Your task to perform on an android device: Open network settings Image 0: 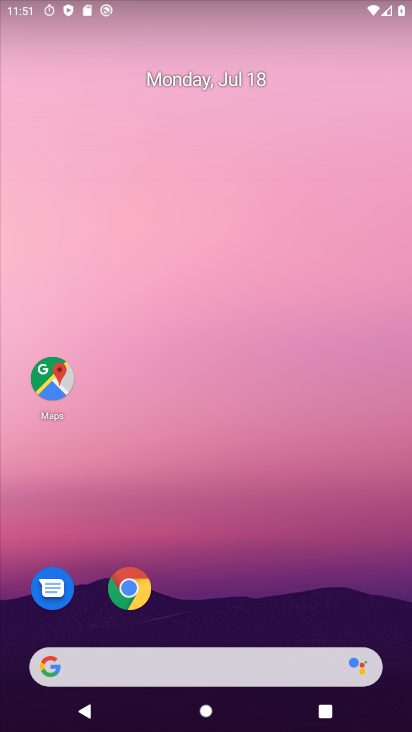
Step 0: drag from (230, 543) to (410, 53)
Your task to perform on an android device: Open network settings Image 1: 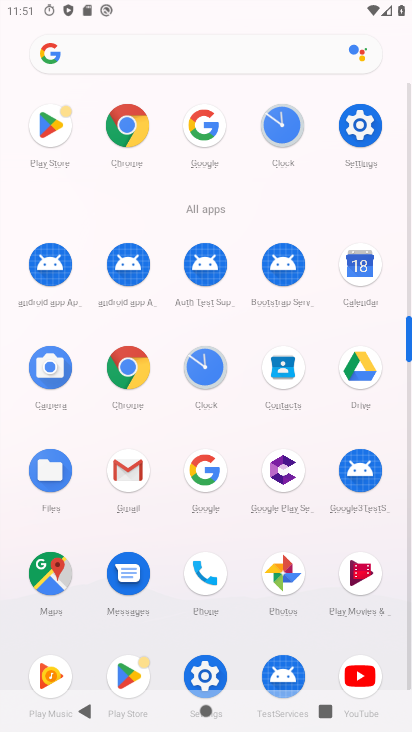
Step 1: click (355, 124)
Your task to perform on an android device: Open network settings Image 2: 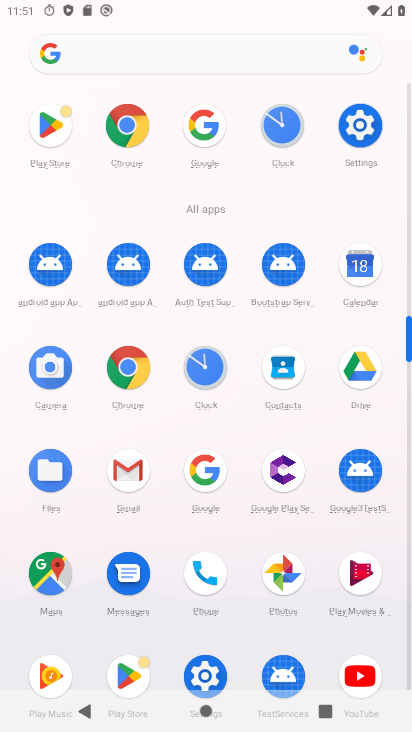
Step 2: click (355, 124)
Your task to perform on an android device: Open network settings Image 3: 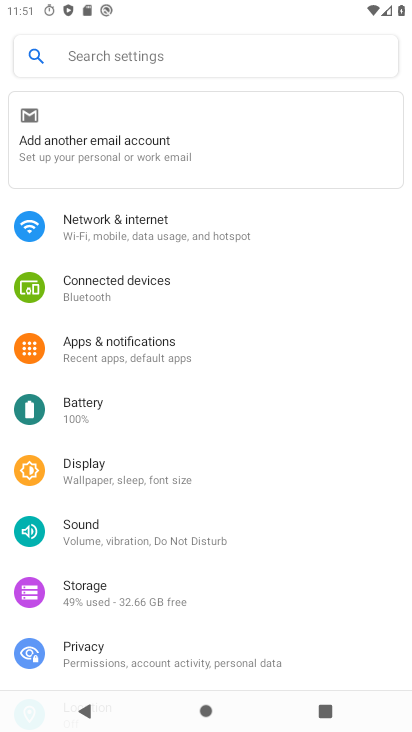
Step 3: click (117, 215)
Your task to perform on an android device: Open network settings Image 4: 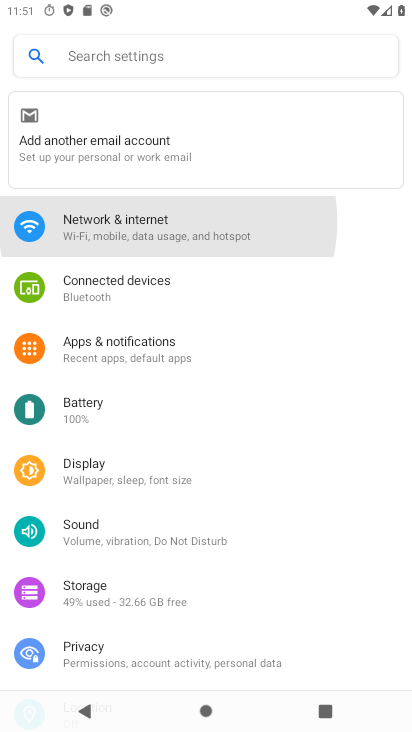
Step 4: click (117, 215)
Your task to perform on an android device: Open network settings Image 5: 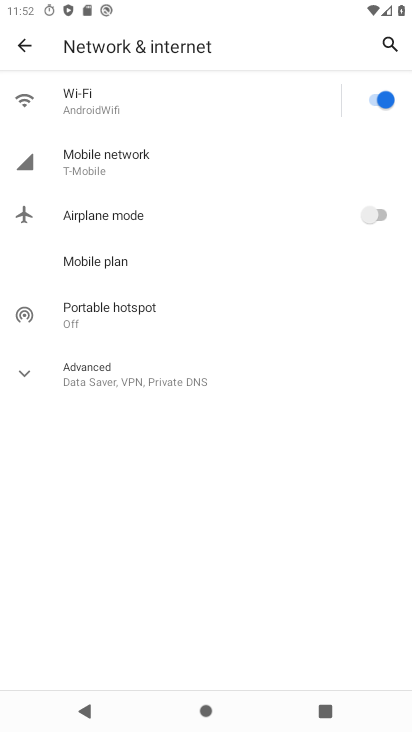
Step 5: task complete